Your task to perform on an android device: Open calendar and show me the first week of next month Image 0: 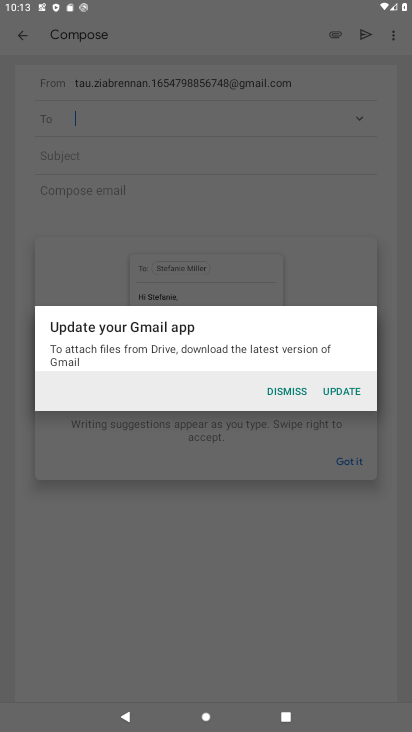
Step 0: press home button
Your task to perform on an android device: Open calendar and show me the first week of next month Image 1: 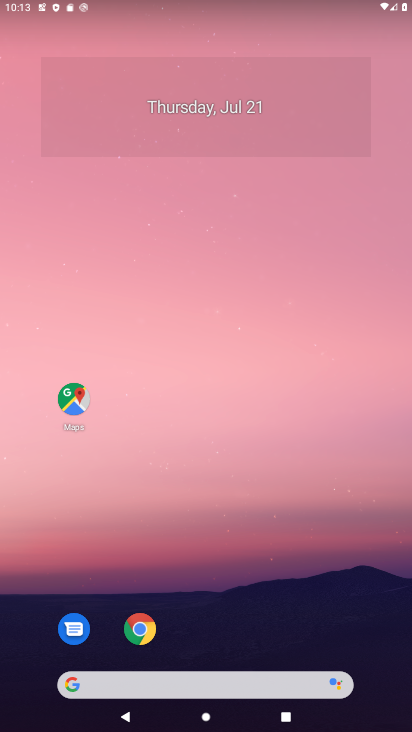
Step 1: drag from (266, 616) to (184, 166)
Your task to perform on an android device: Open calendar and show me the first week of next month Image 2: 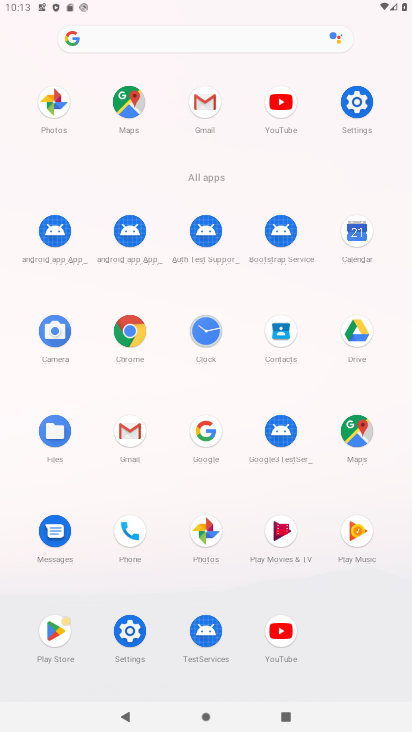
Step 2: click (352, 235)
Your task to perform on an android device: Open calendar and show me the first week of next month Image 3: 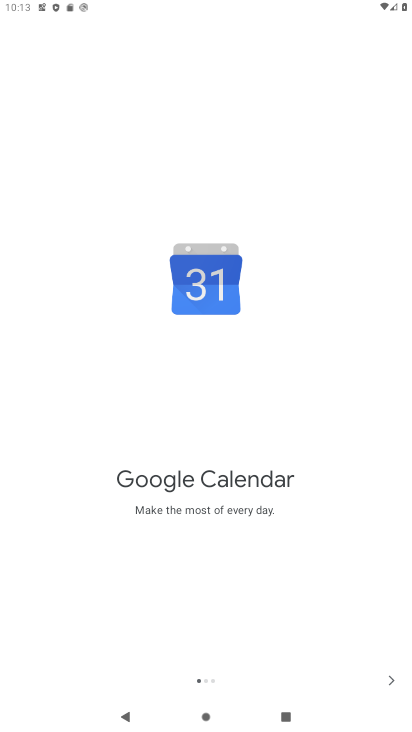
Step 3: click (387, 676)
Your task to perform on an android device: Open calendar and show me the first week of next month Image 4: 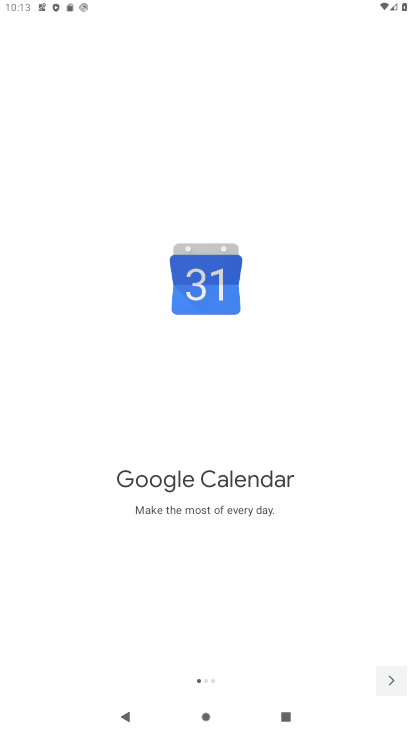
Step 4: click (387, 676)
Your task to perform on an android device: Open calendar and show me the first week of next month Image 5: 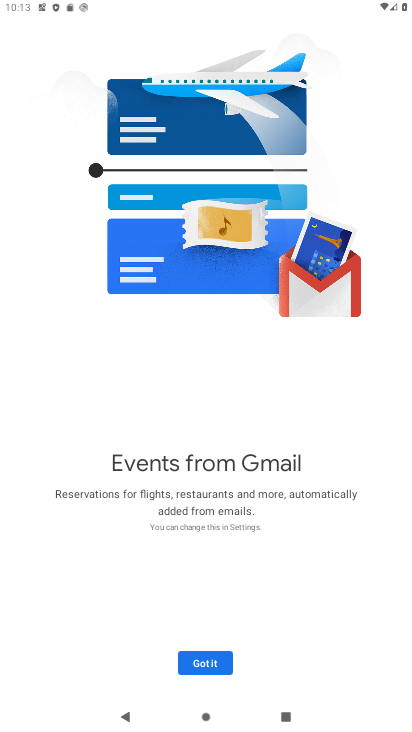
Step 5: click (387, 676)
Your task to perform on an android device: Open calendar and show me the first week of next month Image 6: 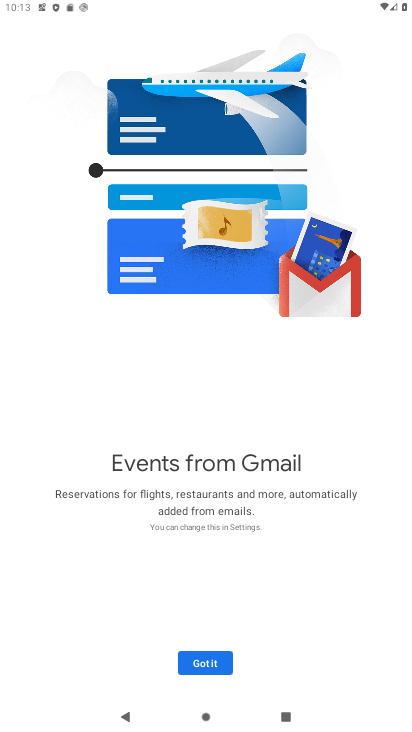
Step 6: click (204, 663)
Your task to perform on an android device: Open calendar and show me the first week of next month Image 7: 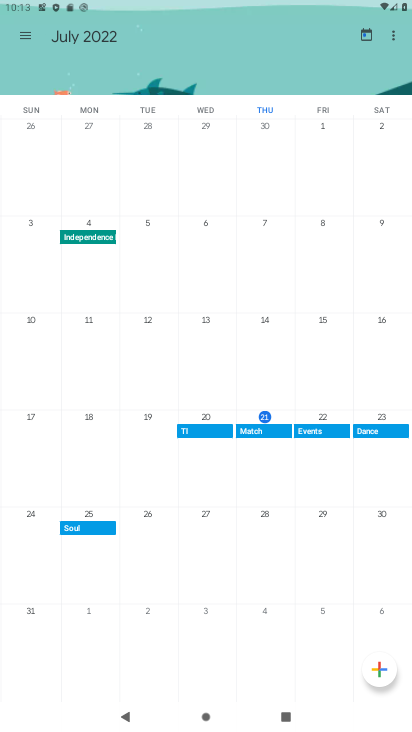
Step 7: drag from (357, 188) to (17, 90)
Your task to perform on an android device: Open calendar and show me the first week of next month Image 8: 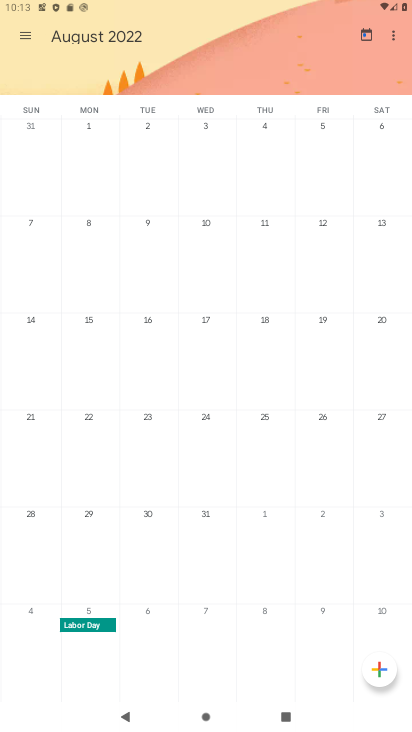
Step 8: click (17, 35)
Your task to perform on an android device: Open calendar and show me the first week of next month Image 9: 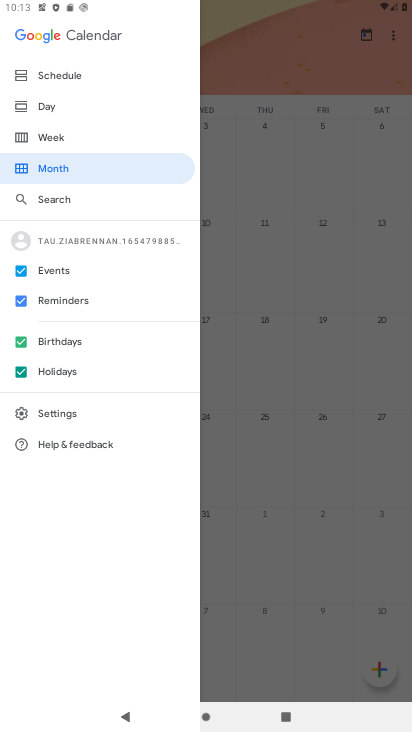
Step 9: click (54, 130)
Your task to perform on an android device: Open calendar and show me the first week of next month Image 10: 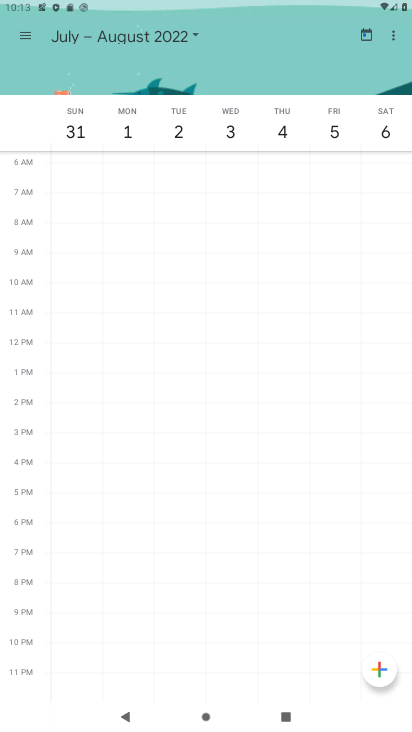
Step 10: task complete